Your task to perform on an android device: Open the phone app and click the voicemail tab. Image 0: 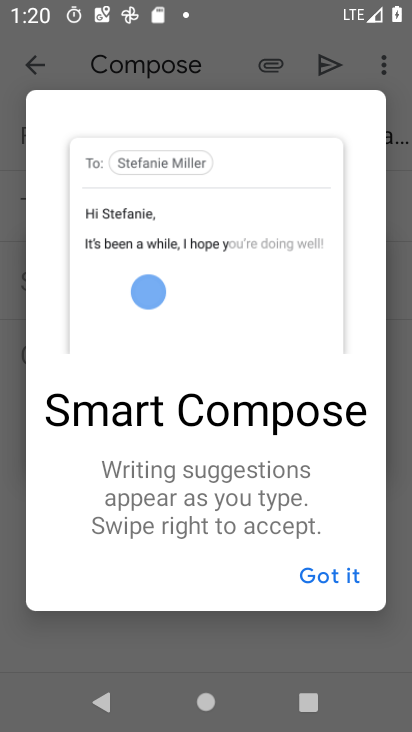
Step 0: press home button
Your task to perform on an android device: Open the phone app and click the voicemail tab. Image 1: 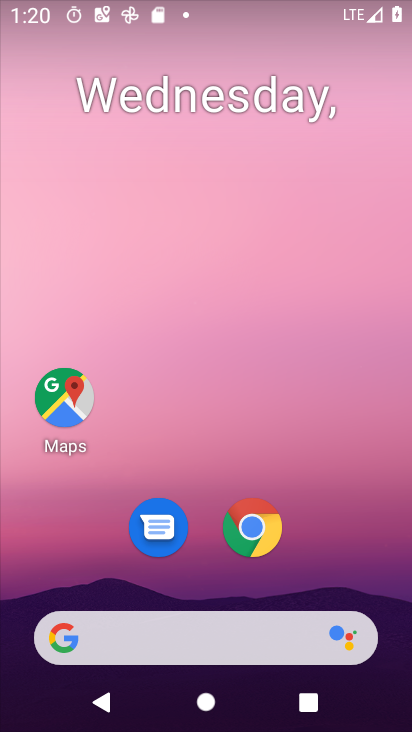
Step 1: drag from (268, 593) to (327, 35)
Your task to perform on an android device: Open the phone app and click the voicemail tab. Image 2: 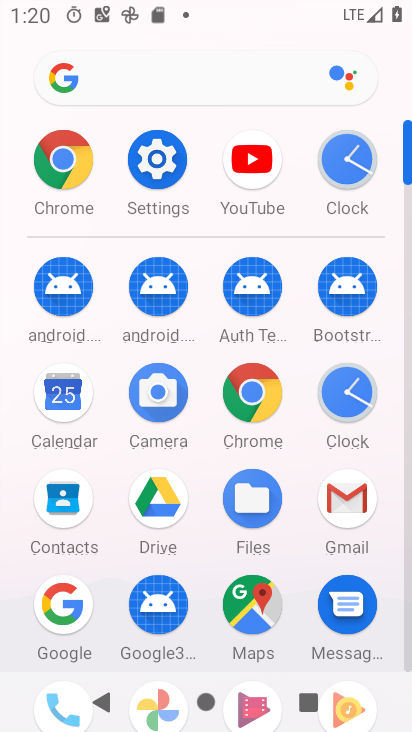
Step 2: drag from (298, 607) to (322, 301)
Your task to perform on an android device: Open the phone app and click the voicemail tab. Image 3: 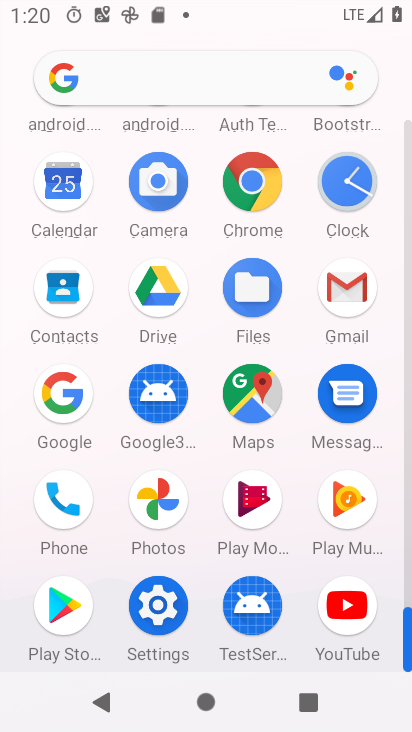
Step 3: click (76, 499)
Your task to perform on an android device: Open the phone app and click the voicemail tab. Image 4: 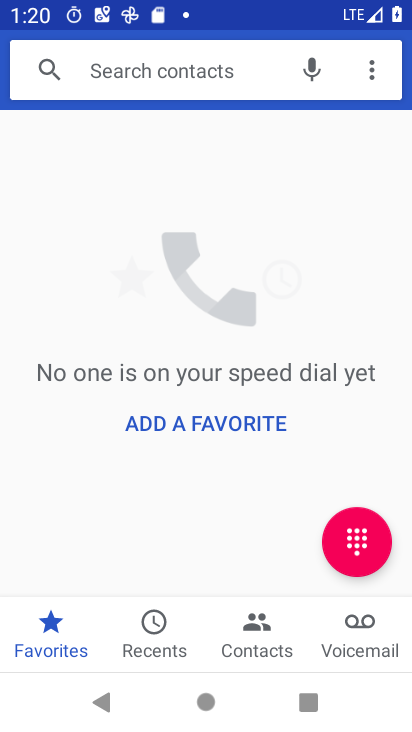
Step 4: click (372, 637)
Your task to perform on an android device: Open the phone app and click the voicemail tab. Image 5: 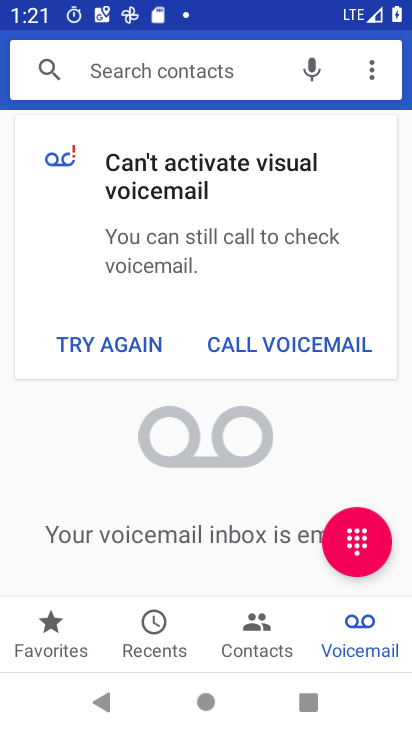
Step 5: task complete